Your task to perform on an android device: Go to Maps Image 0: 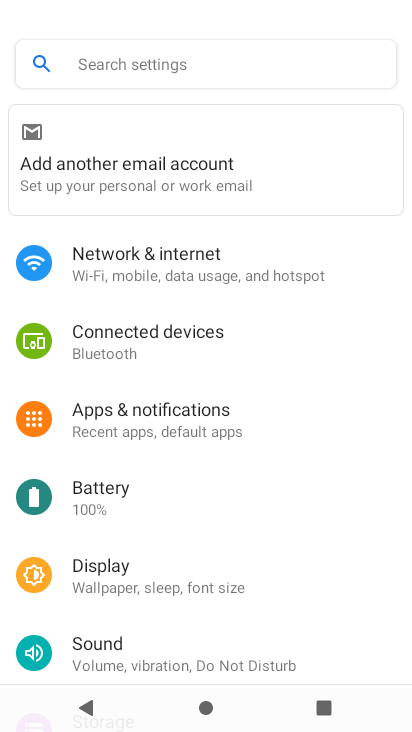
Step 0: press home button
Your task to perform on an android device: Go to Maps Image 1: 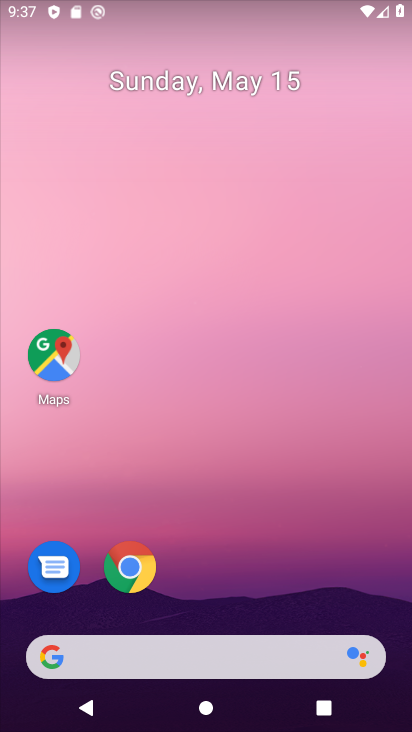
Step 1: click (64, 359)
Your task to perform on an android device: Go to Maps Image 2: 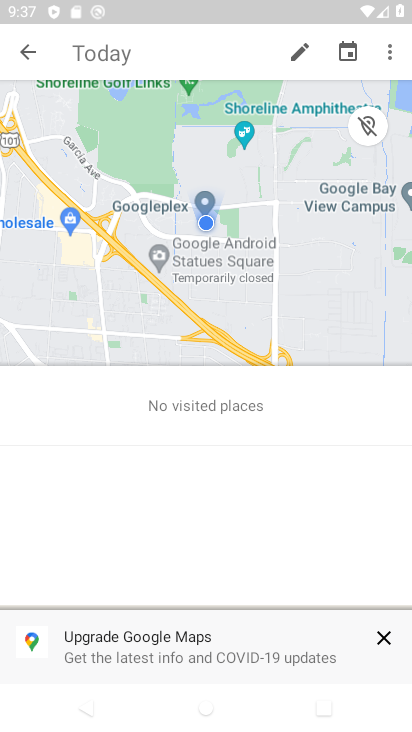
Step 2: task complete